Your task to perform on an android device: Open maps Image 0: 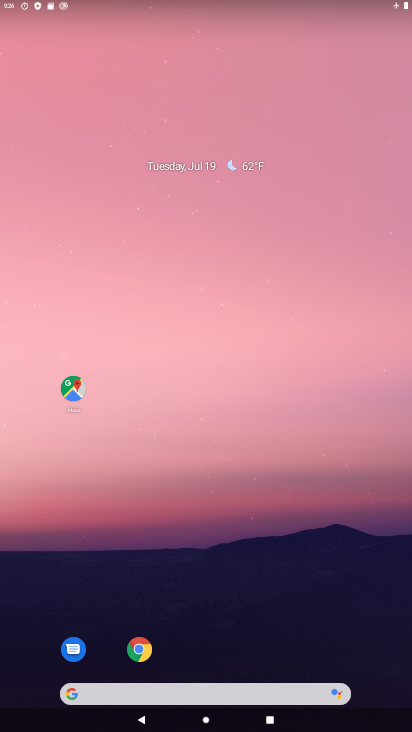
Step 0: click (77, 388)
Your task to perform on an android device: Open maps Image 1: 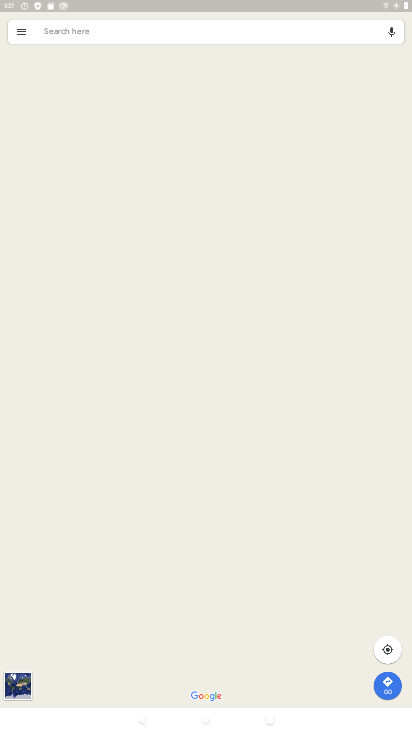
Step 1: task complete